Your task to perform on an android device: open a new tab in the chrome app Image 0: 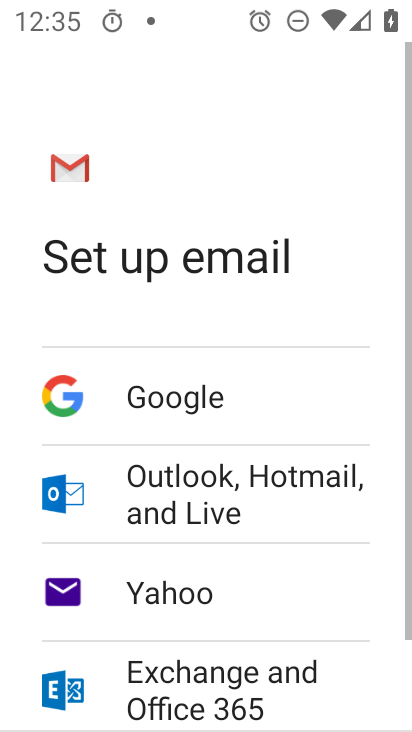
Step 0: press home button
Your task to perform on an android device: open a new tab in the chrome app Image 1: 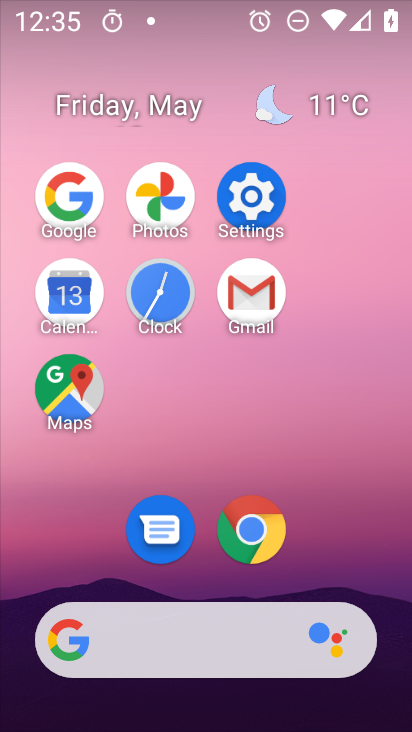
Step 1: click (242, 547)
Your task to perform on an android device: open a new tab in the chrome app Image 2: 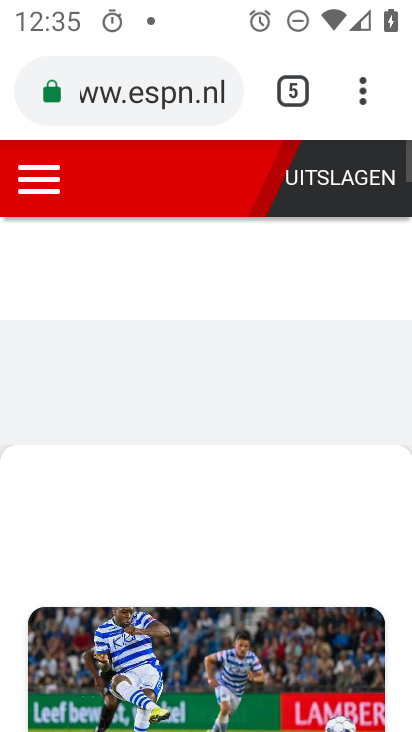
Step 2: click (295, 94)
Your task to perform on an android device: open a new tab in the chrome app Image 3: 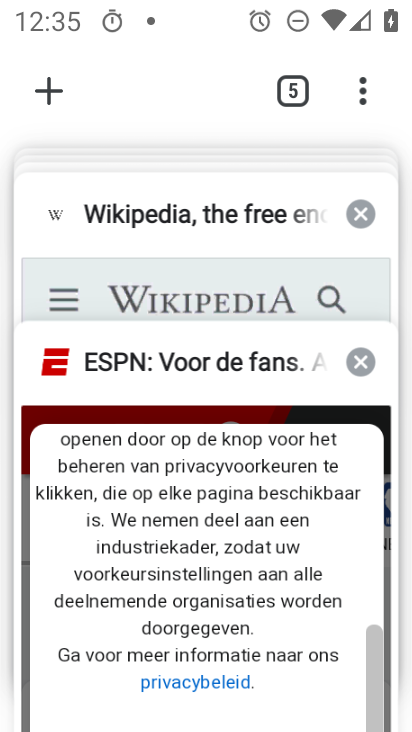
Step 3: click (53, 86)
Your task to perform on an android device: open a new tab in the chrome app Image 4: 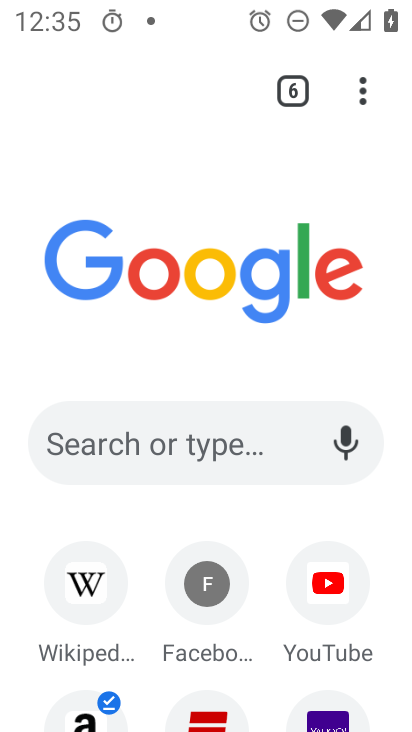
Step 4: task complete